Your task to perform on an android device: turn off location Image 0: 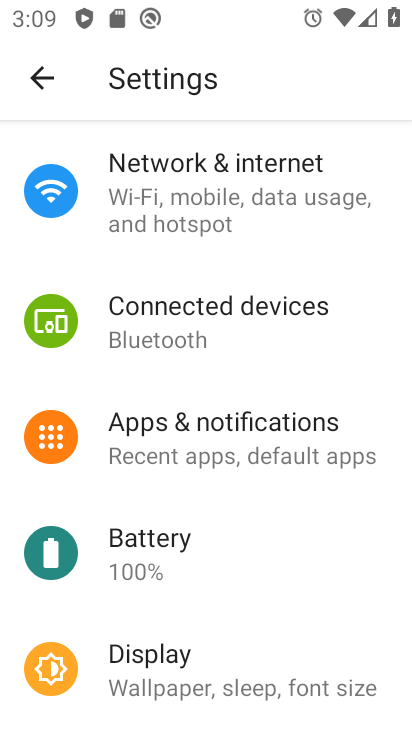
Step 0: drag from (298, 596) to (286, 200)
Your task to perform on an android device: turn off location Image 1: 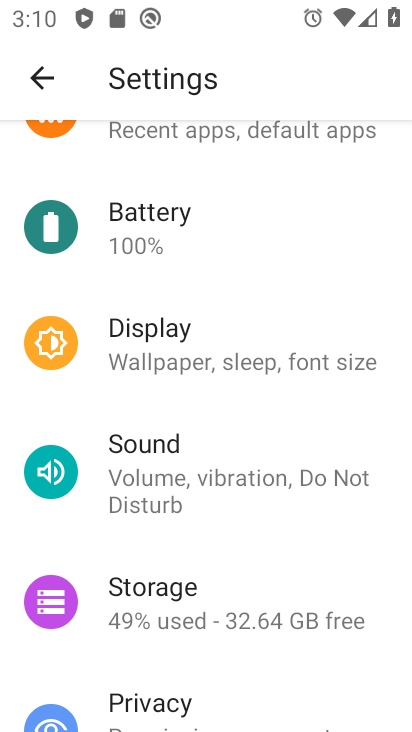
Step 1: drag from (253, 648) to (243, 318)
Your task to perform on an android device: turn off location Image 2: 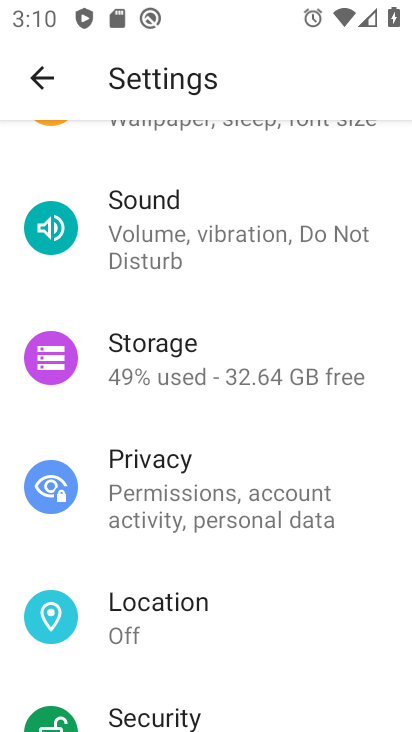
Step 2: drag from (233, 610) to (234, 454)
Your task to perform on an android device: turn off location Image 3: 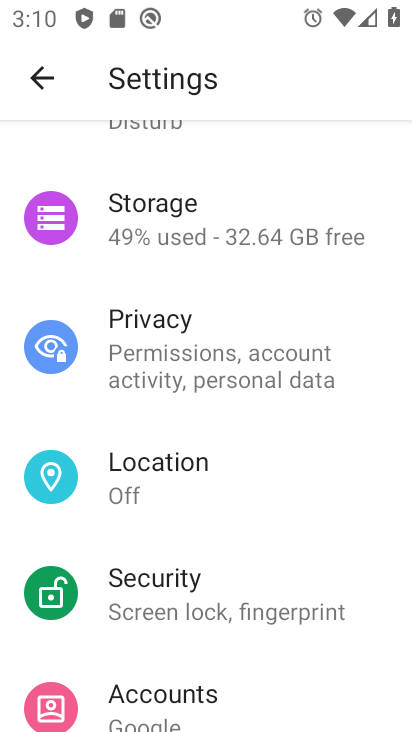
Step 3: click (223, 464)
Your task to perform on an android device: turn off location Image 4: 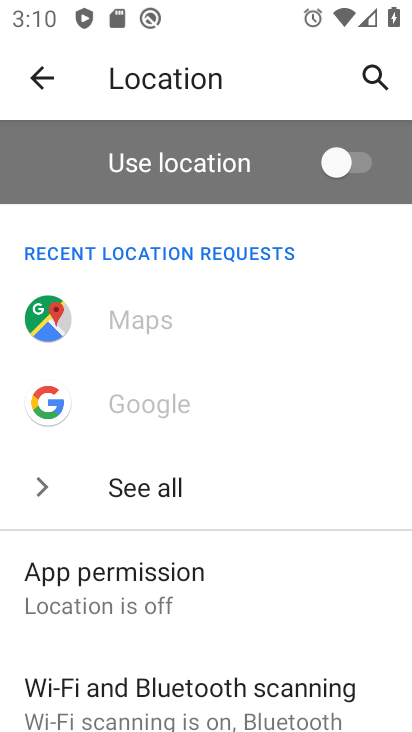
Step 4: task complete